Your task to perform on an android device: Is it going to rain this weekend? Image 0: 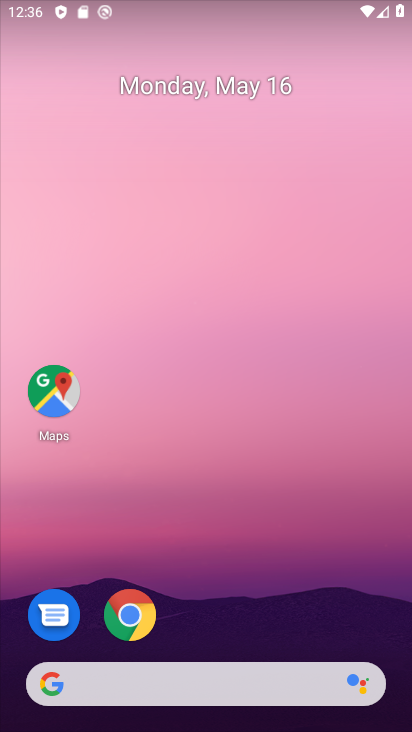
Step 0: click (154, 685)
Your task to perform on an android device: Is it going to rain this weekend? Image 1: 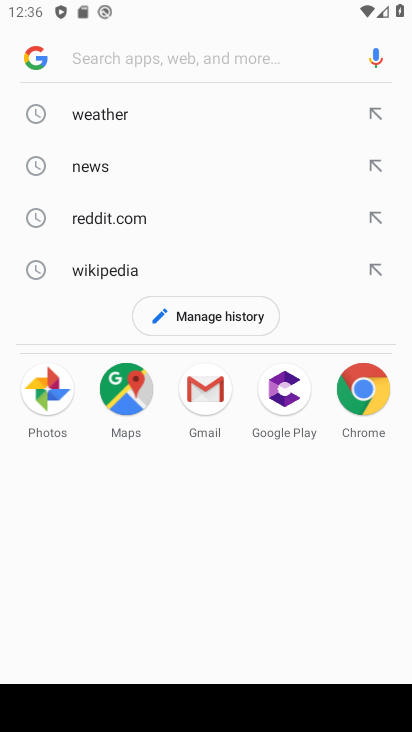
Step 1: click (151, 103)
Your task to perform on an android device: Is it going to rain this weekend? Image 2: 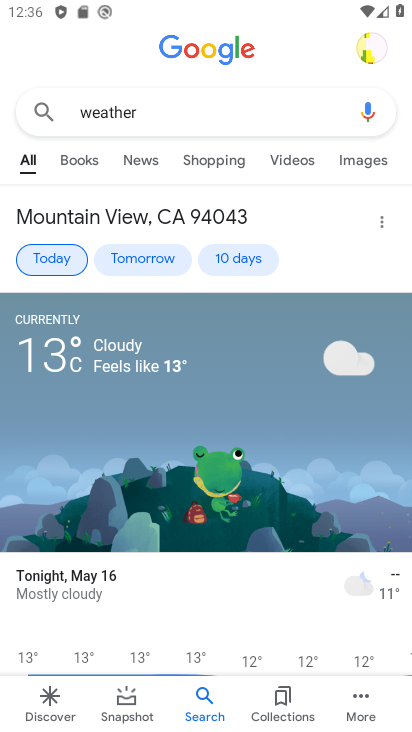
Step 2: click (235, 263)
Your task to perform on an android device: Is it going to rain this weekend? Image 3: 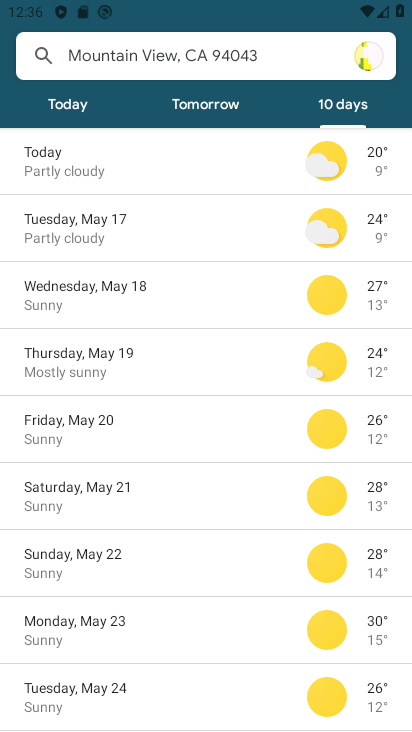
Step 3: task complete